Your task to perform on an android device: allow notifications from all sites in the chrome app Image 0: 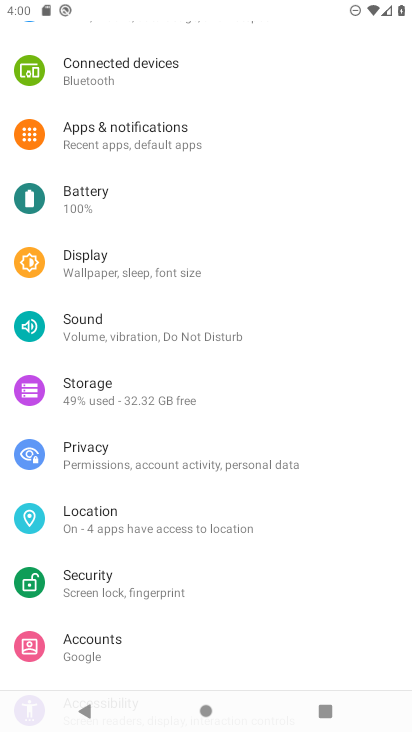
Step 0: press home button
Your task to perform on an android device: allow notifications from all sites in the chrome app Image 1: 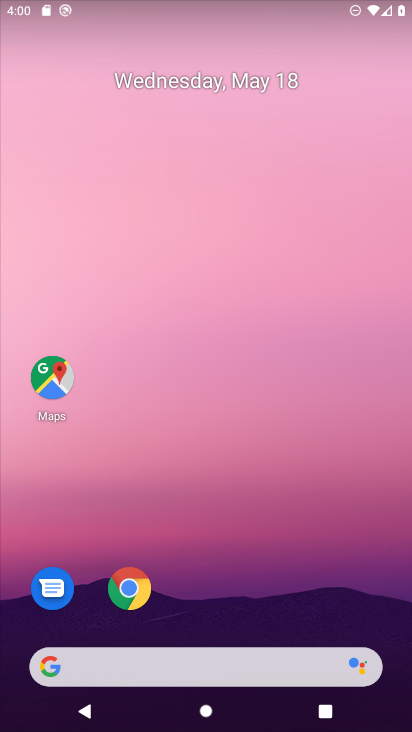
Step 1: drag from (316, 557) to (317, 237)
Your task to perform on an android device: allow notifications from all sites in the chrome app Image 2: 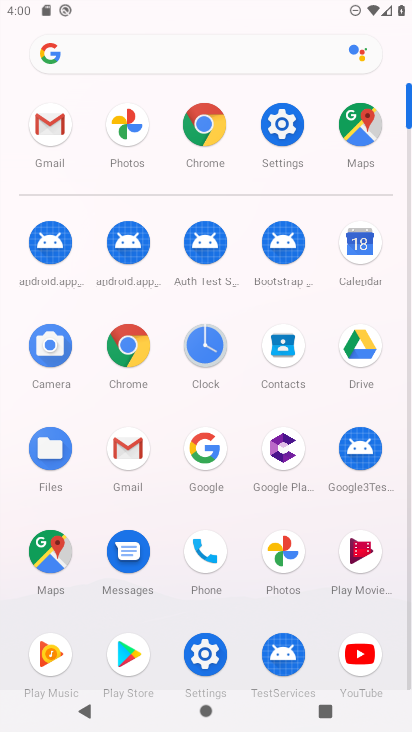
Step 2: click (192, 143)
Your task to perform on an android device: allow notifications from all sites in the chrome app Image 3: 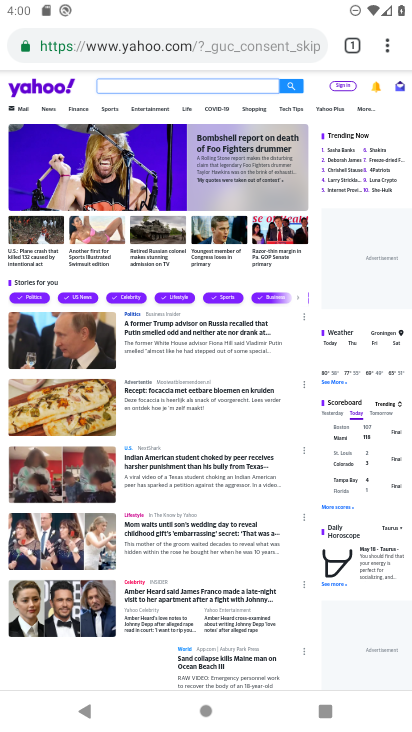
Step 3: click (386, 56)
Your task to perform on an android device: allow notifications from all sites in the chrome app Image 4: 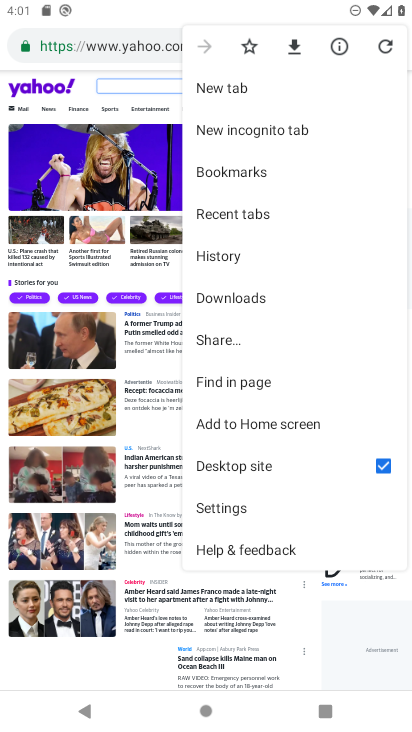
Step 4: click (263, 509)
Your task to perform on an android device: allow notifications from all sites in the chrome app Image 5: 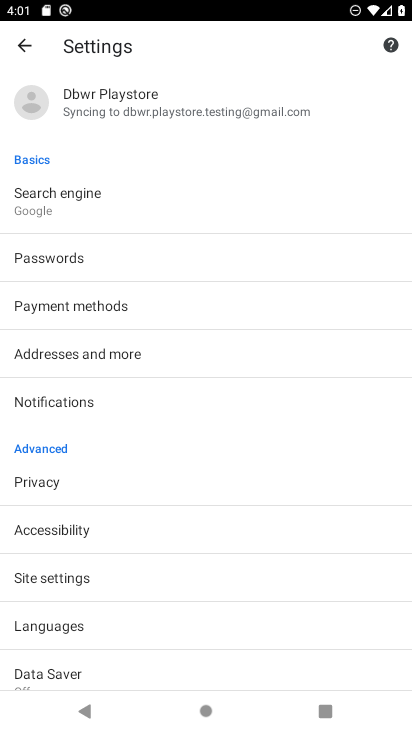
Step 5: click (142, 401)
Your task to perform on an android device: allow notifications from all sites in the chrome app Image 6: 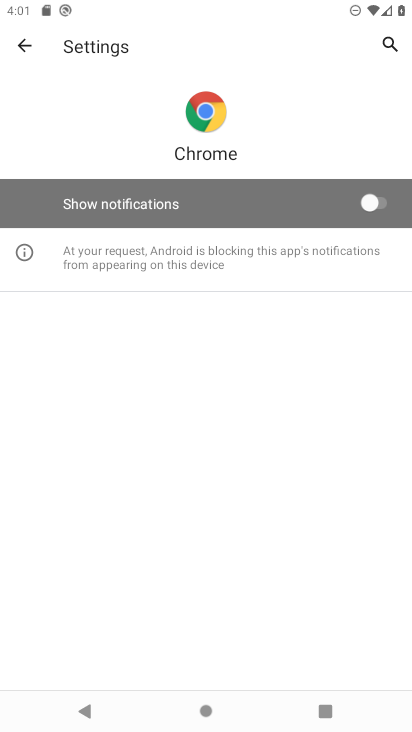
Step 6: click (356, 193)
Your task to perform on an android device: allow notifications from all sites in the chrome app Image 7: 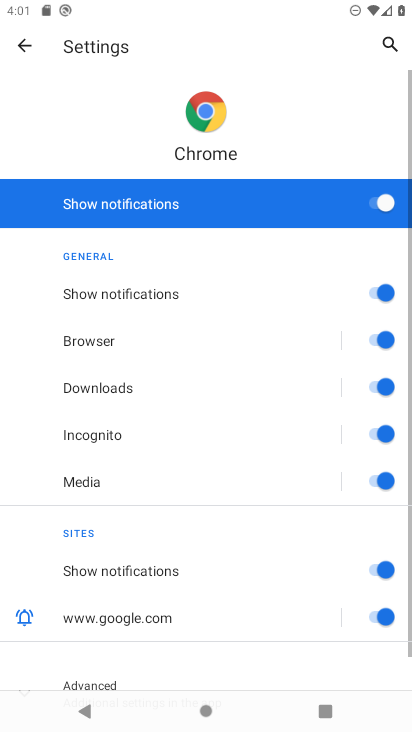
Step 7: task complete